Your task to perform on an android device: Show me productivity apps on the Play Store Image 0: 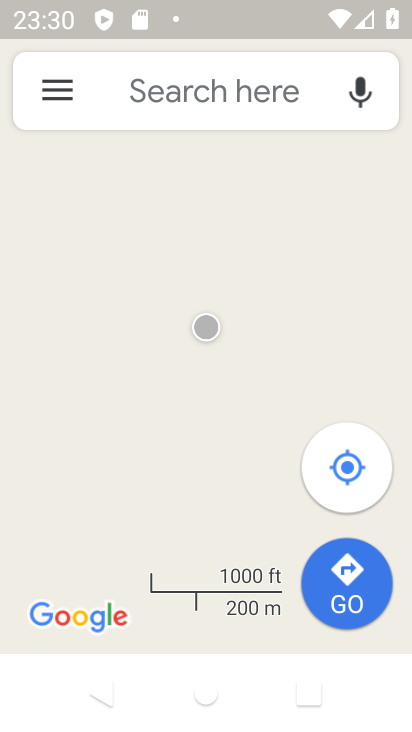
Step 0: press home button
Your task to perform on an android device: Show me productivity apps on the Play Store Image 1: 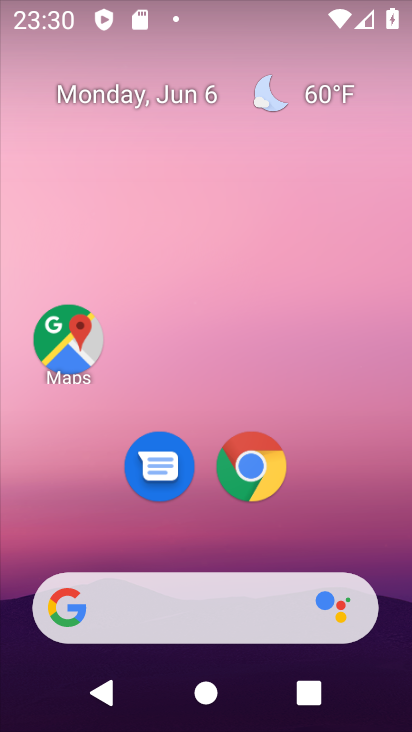
Step 1: drag from (341, 528) to (348, 0)
Your task to perform on an android device: Show me productivity apps on the Play Store Image 2: 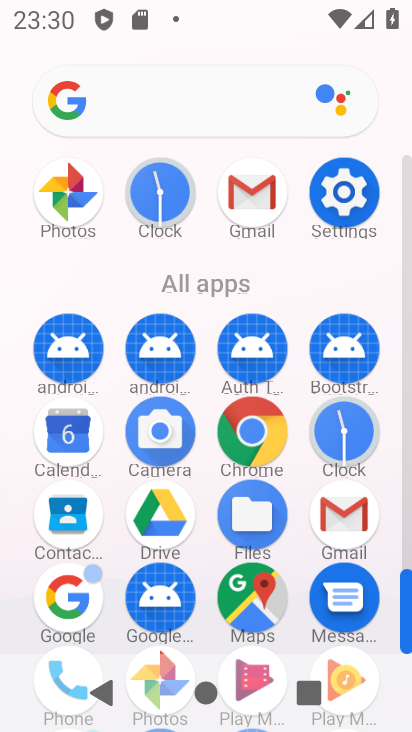
Step 2: drag from (134, 561) to (150, 204)
Your task to perform on an android device: Show me productivity apps on the Play Store Image 3: 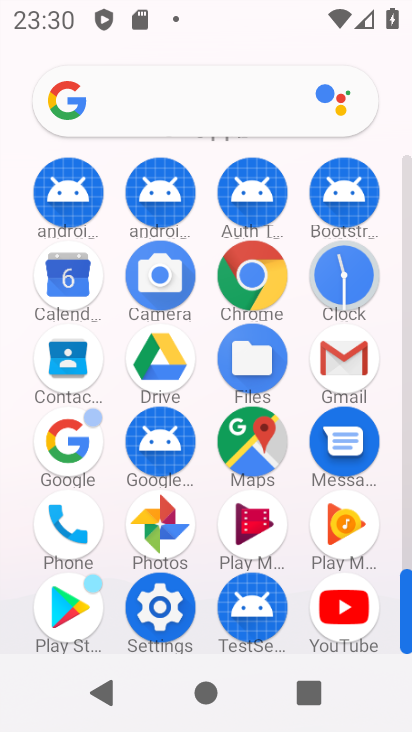
Step 3: click (84, 615)
Your task to perform on an android device: Show me productivity apps on the Play Store Image 4: 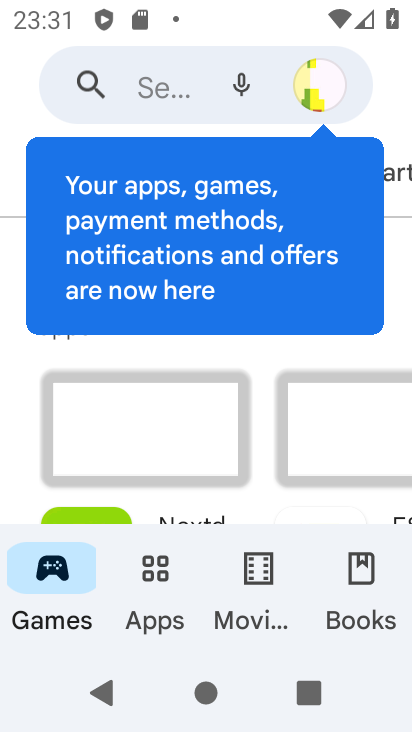
Step 4: click (153, 580)
Your task to perform on an android device: Show me productivity apps on the Play Store Image 5: 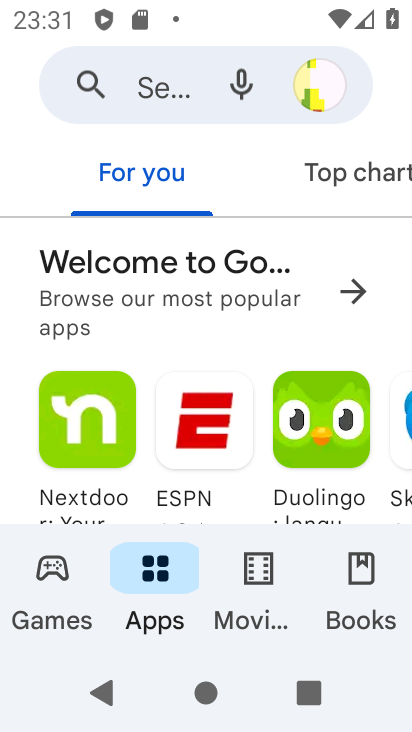
Step 5: drag from (370, 181) to (12, 195)
Your task to perform on an android device: Show me productivity apps on the Play Store Image 6: 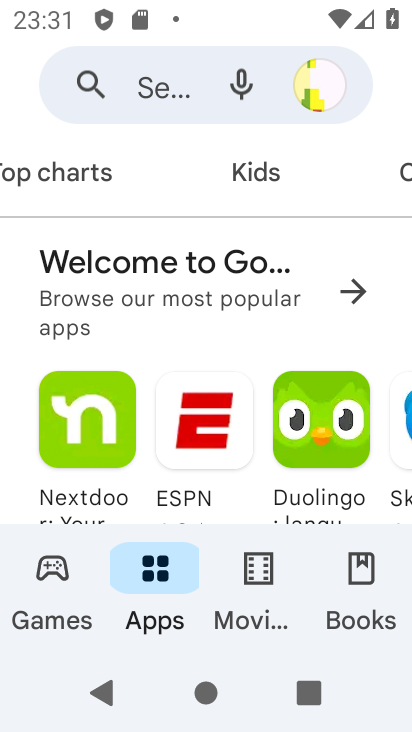
Step 6: drag from (389, 191) to (188, 204)
Your task to perform on an android device: Show me productivity apps on the Play Store Image 7: 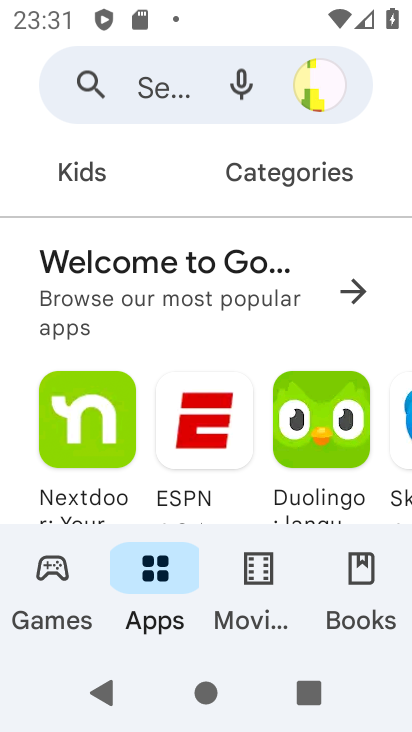
Step 7: click (274, 179)
Your task to perform on an android device: Show me productivity apps on the Play Store Image 8: 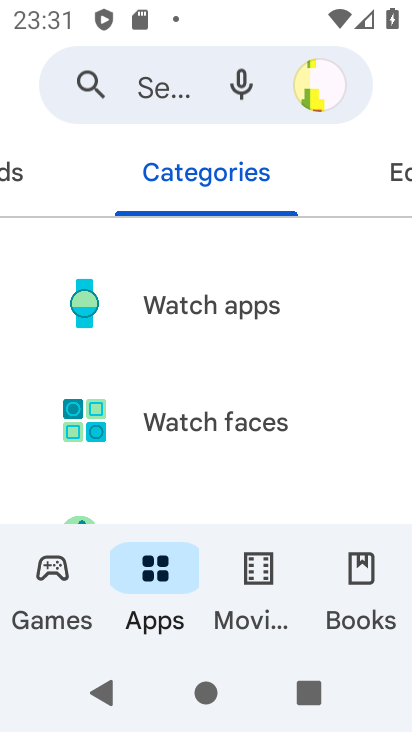
Step 8: drag from (205, 455) to (217, 120)
Your task to perform on an android device: Show me productivity apps on the Play Store Image 9: 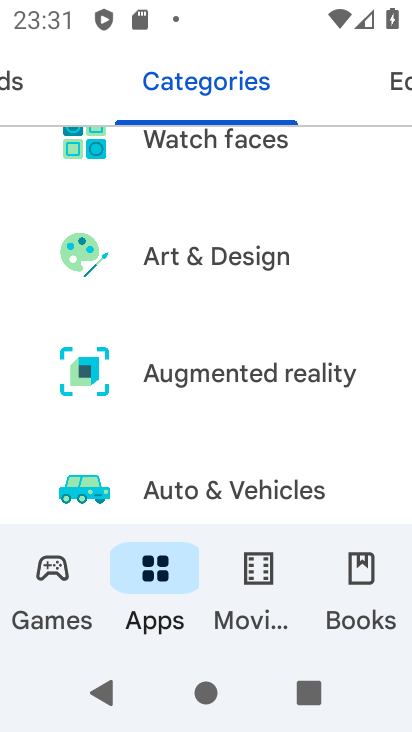
Step 9: drag from (185, 472) to (200, 88)
Your task to perform on an android device: Show me productivity apps on the Play Store Image 10: 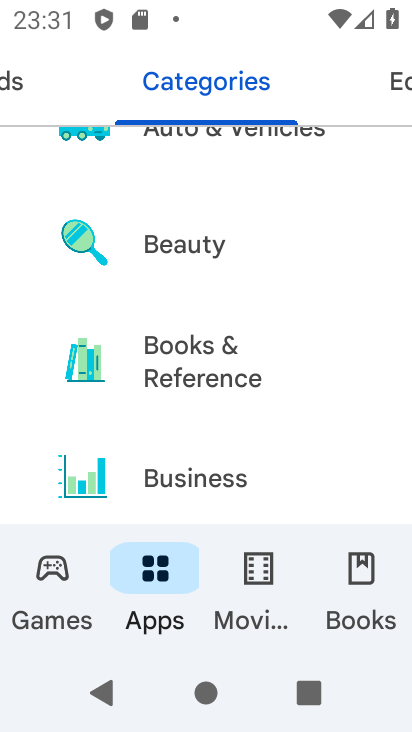
Step 10: drag from (195, 451) to (204, 77)
Your task to perform on an android device: Show me productivity apps on the Play Store Image 11: 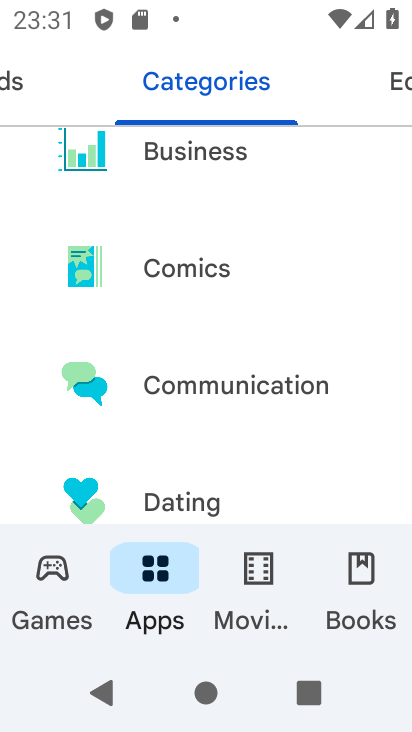
Step 11: drag from (248, 460) to (252, 81)
Your task to perform on an android device: Show me productivity apps on the Play Store Image 12: 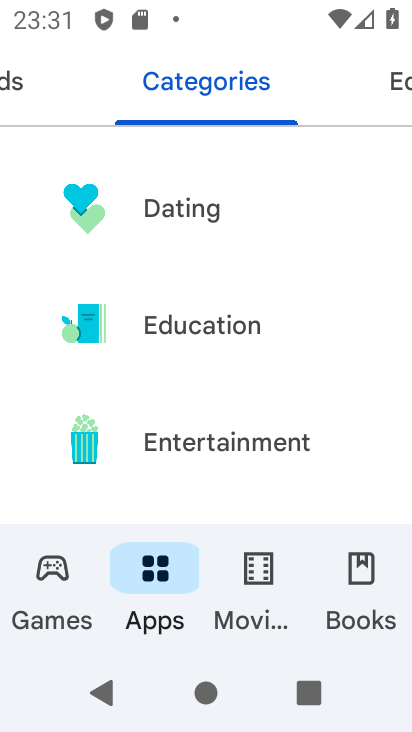
Step 12: drag from (261, 445) to (272, 110)
Your task to perform on an android device: Show me productivity apps on the Play Store Image 13: 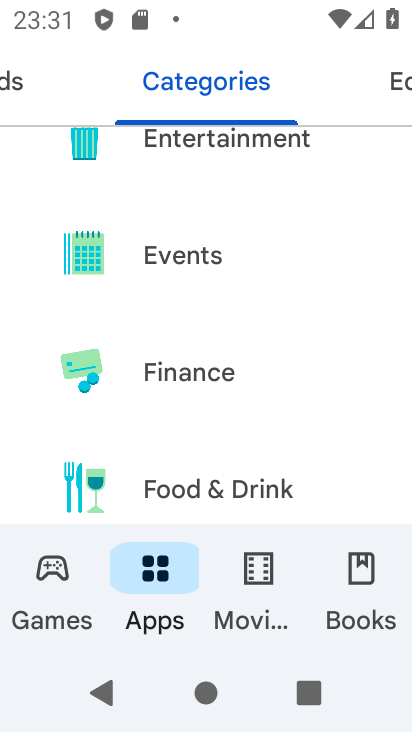
Step 13: drag from (288, 452) to (307, 97)
Your task to perform on an android device: Show me productivity apps on the Play Store Image 14: 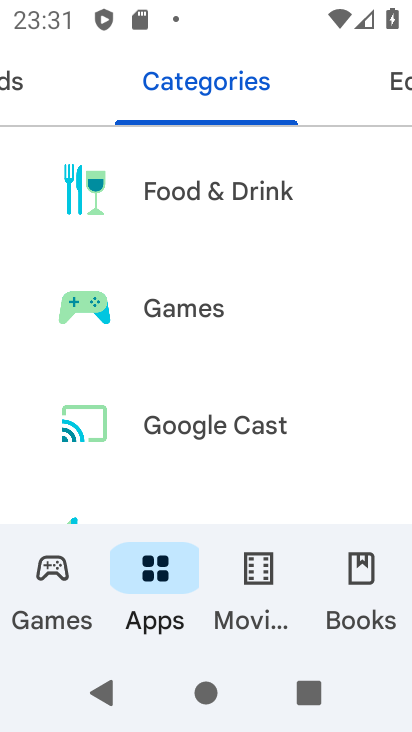
Step 14: drag from (270, 477) to (297, 76)
Your task to perform on an android device: Show me productivity apps on the Play Store Image 15: 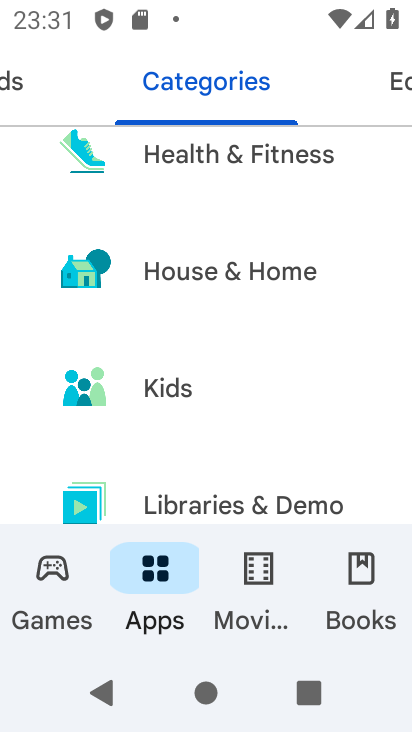
Step 15: drag from (231, 449) to (231, 124)
Your task to perform on an android device: Show me productivity apps on the Play Store Image 16: 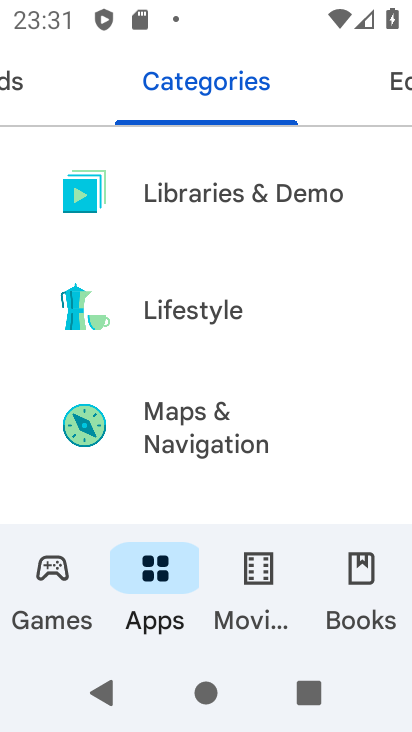
Step 16: drag from (225, 469) to (241, 139)
Your task to perform on an android device: Show me productivity apps on the Play Store Image 17: 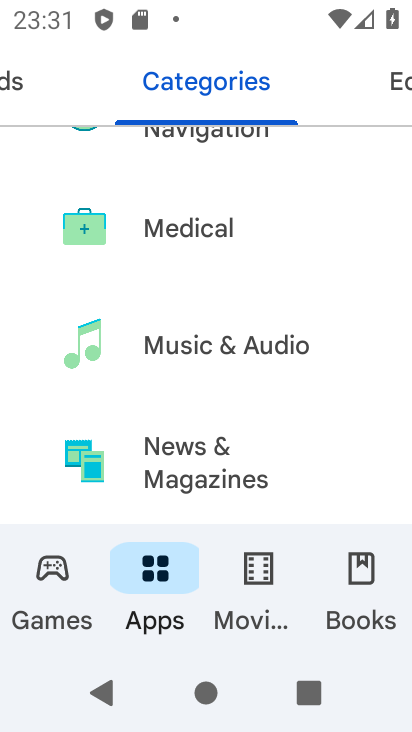
Step 17: drag from (263, 421) to (295, 87)
Your task to perform on an android device: Show me productivity apps on the Play Store Image 18: 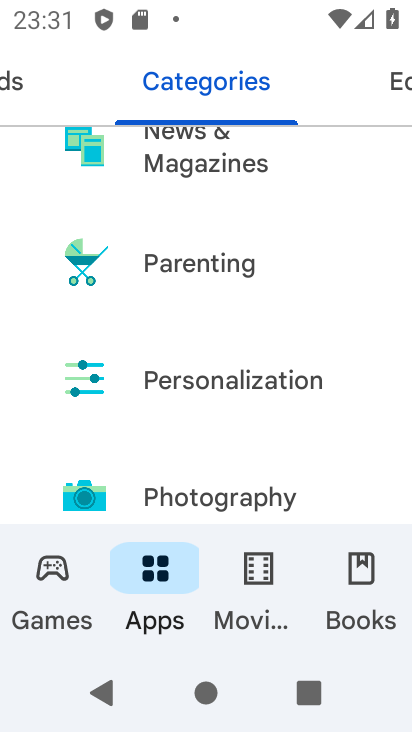
Step 18: drag from (298, 494) to (287, 221)
Your task to perform on an android device: Show me productivity apps on the Play Store Image 19: 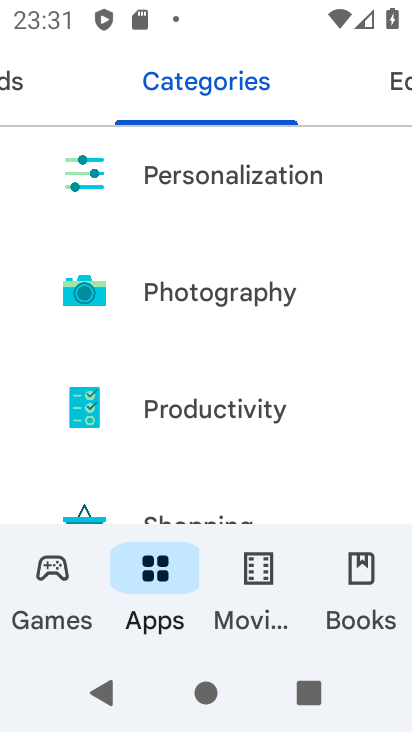
Step 19: drag from (190, 487) to (228, 301)
Your task to perform on an android device: Show me productivity apps on the Play Store Image 20: 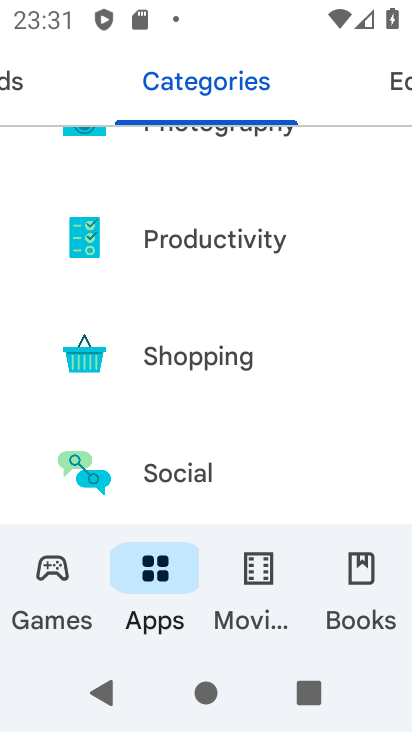
Step 20: click (224, 233)
Your task to perform on an android device: Show me productivity apps on the Play Store Image 21: 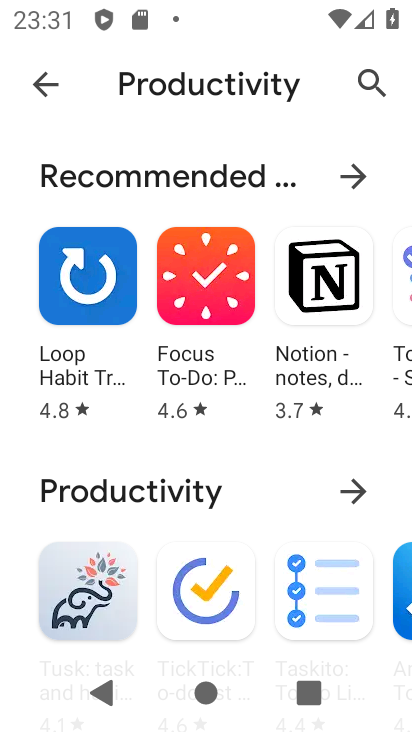
Step 21: task complete